Your task to perform on an android device: read, delete, or share a saved page in the chrome app Image 0: 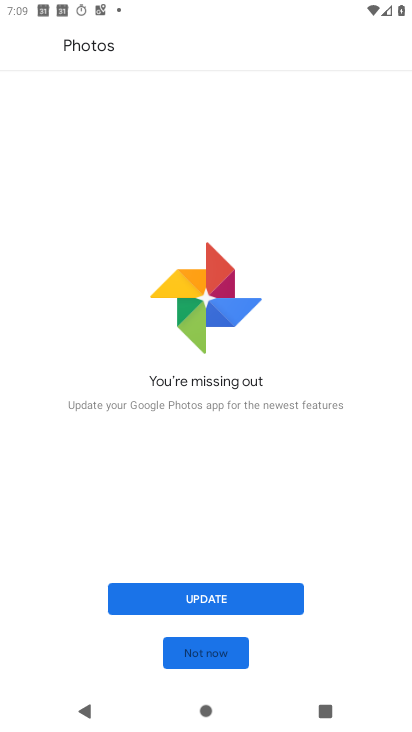
Step 0: press back button
Your task to perform on an android device: read, delete, or share a saved page in the chrome app Image 1: 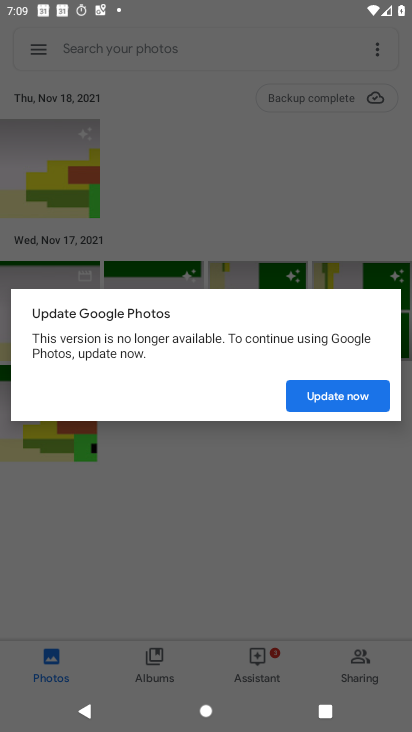
Step 1: press home button
Your task to perform on an android device: read, delete, or share a saved page in the chrome app Image 2: 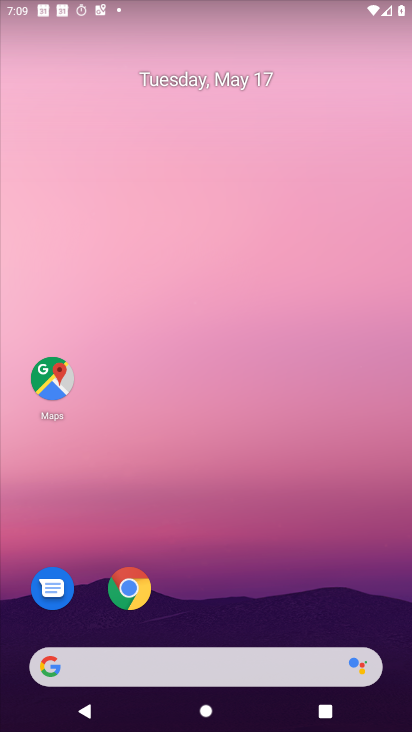
Step 2: click (130, 588)
Your task to perform on an android device: read, delete, or share a saved page in the chrome app Image 3: 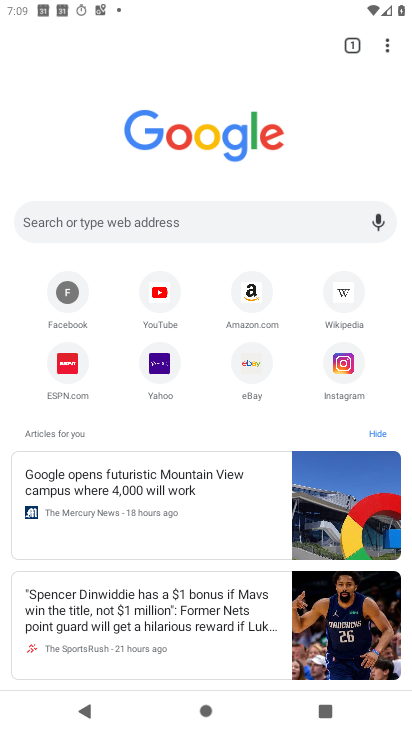
Step 3: click (387, 45)
Your task to perform on an android device: read, delete, or share a saved page in the chrome app Image 4: 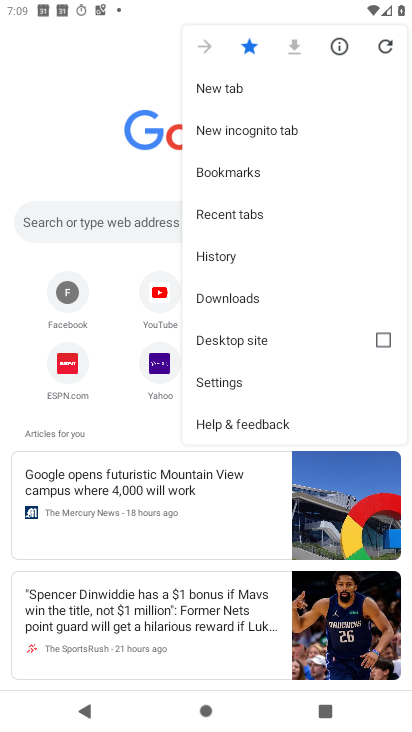
Step 4: click (248, 298)
Your task to perform on an android device: read, delete, or share a saved page in the chrome app Image 5: 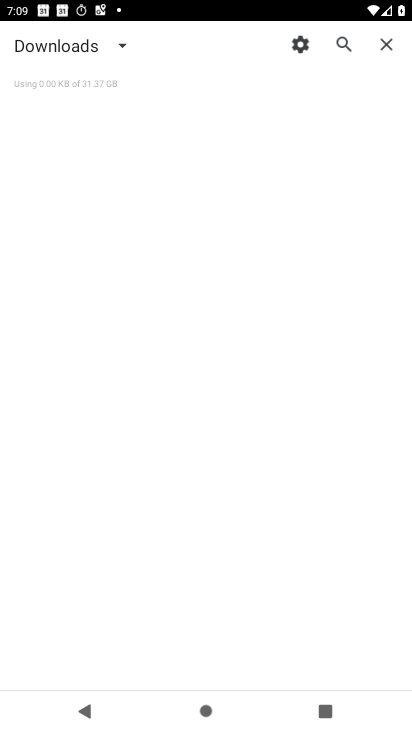
Step 5: click (122, 43)
Your task to perform on an android device: read, delete, or share a saved page in the chrome app Image 6: 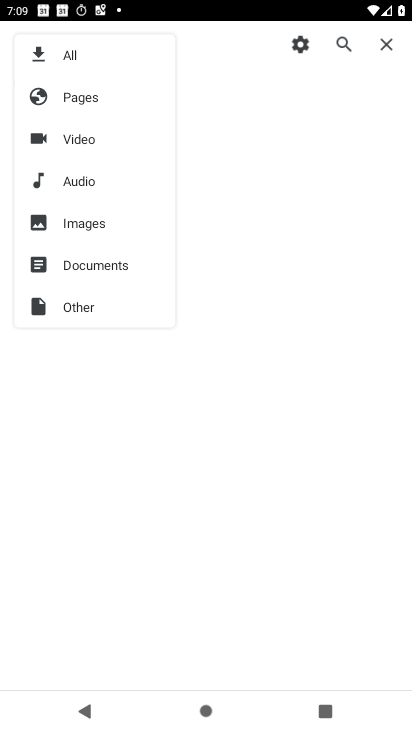
Step 6: click (107, 98)
Your task to perform on an android device: read, delete, or share a saved page in the chrome app Image 7: 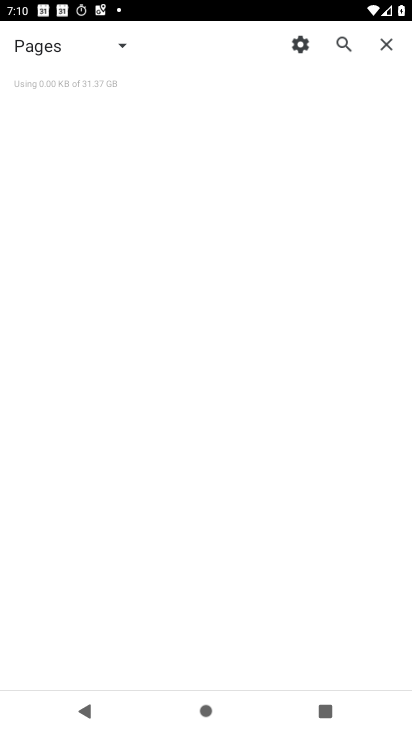
Step 7: task complete